Your task to perform on an android device: make emails show in primary in the gmail app Image 0: 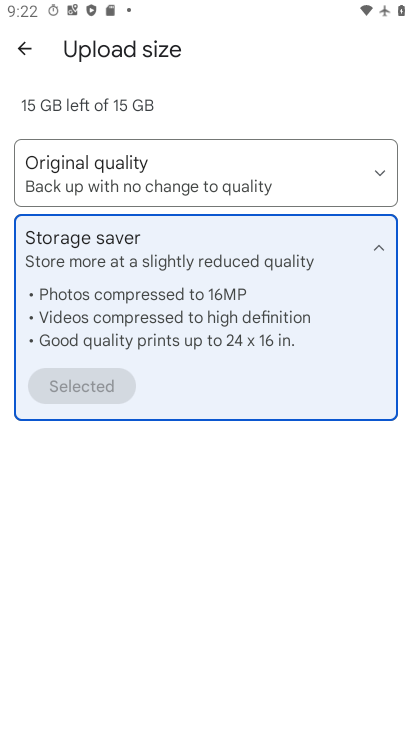
Step 0: press home button
Your task to perform on an android device: make emails show in primary in the gmail app Image 1: 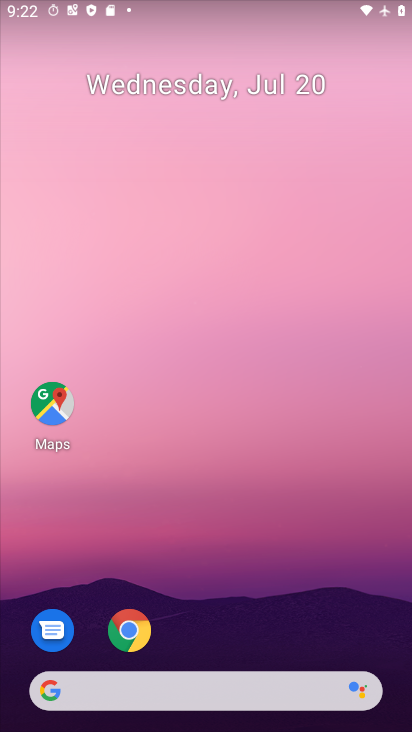
Step 1: drag from (213, 727) to (217, 328)
Your task to perform on an android device: make emails show in primary in the gmail app Image 2: 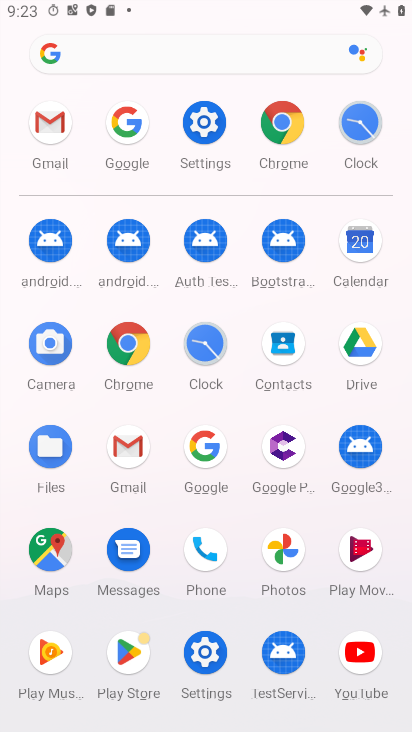
Step 2: click (139, 455)
Your task to perform on an android device: make emails show in primary in the gmail app Image 3: 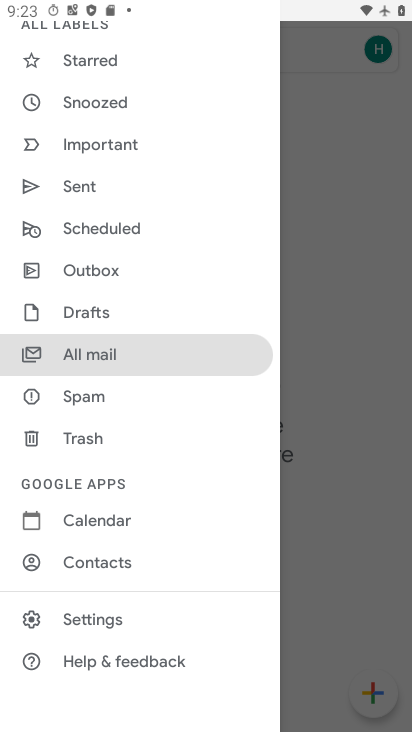
Step 3: click (151, 358)
Your task to perform on an android device: make emails show in primary in the gmail app Image 4: 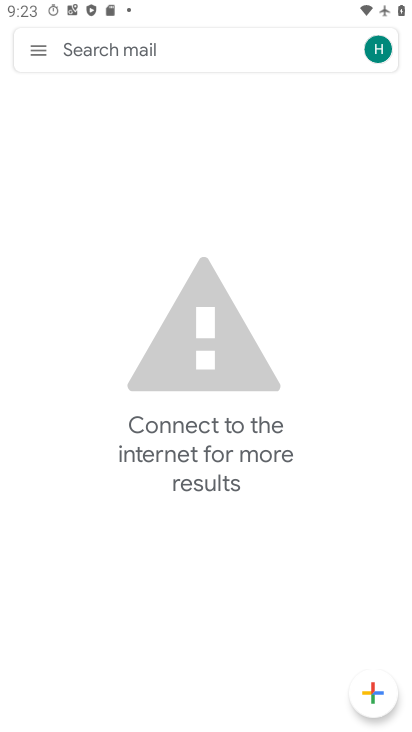
Step 4: click (39, 53)
Your task to perform on an android device: make emails show in primary in the gmail app Image 5: 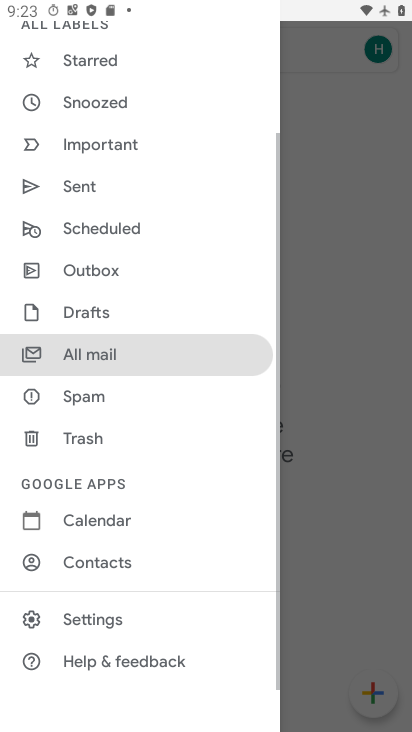
Step 5: click (96, 620)
Your task to perform on an android device: make emails show in primary in the gmail app Image 6: 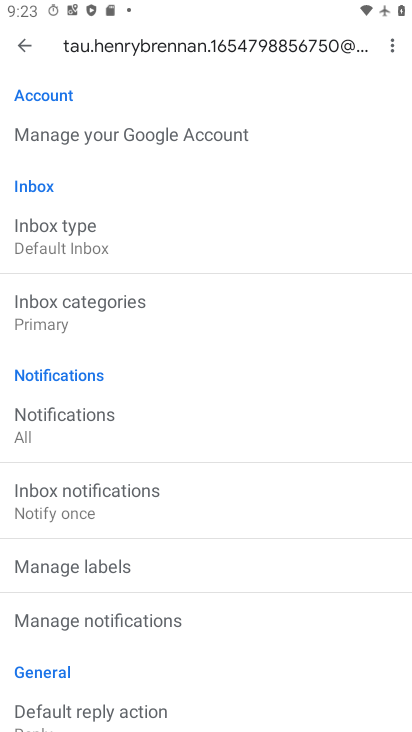
Step 6: click (104, 326)
Your task to perform on an android device: make emails show in primary in the gmail app Image 7: 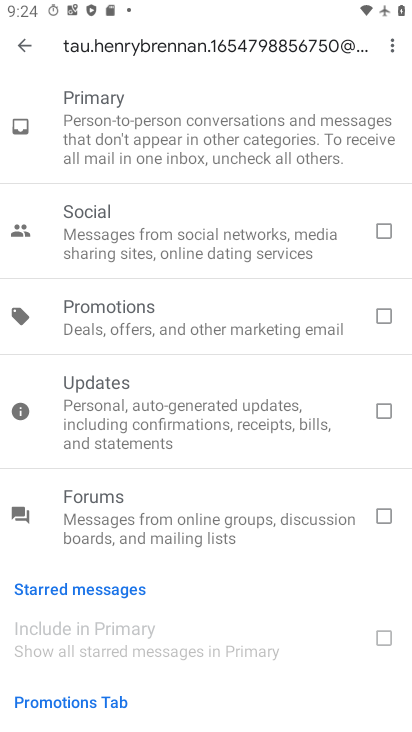
Step 7: task complete